Your task to perform on an android device: set default search engine in the chrome app Image 0: 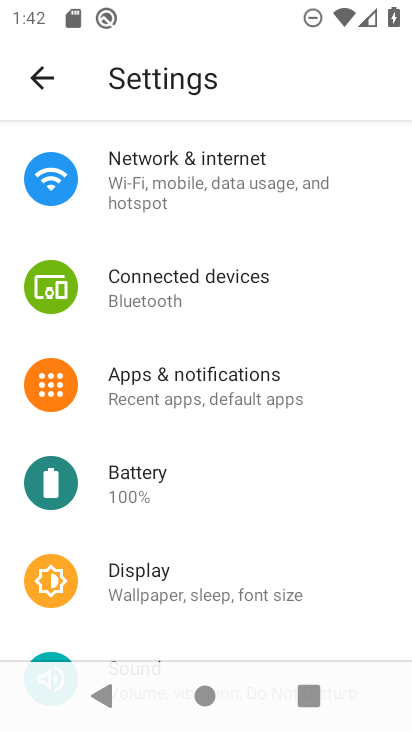
Step 0: press home button
Your task to perform on an android device: set default search engine in the chrome app Image 1: 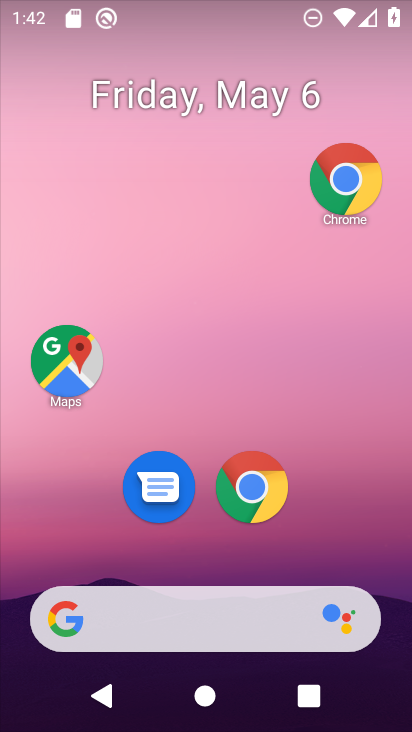
Step 1: click (246, 519)
Your task to perform on an android device: set default search engine in the chrome app Image 2: 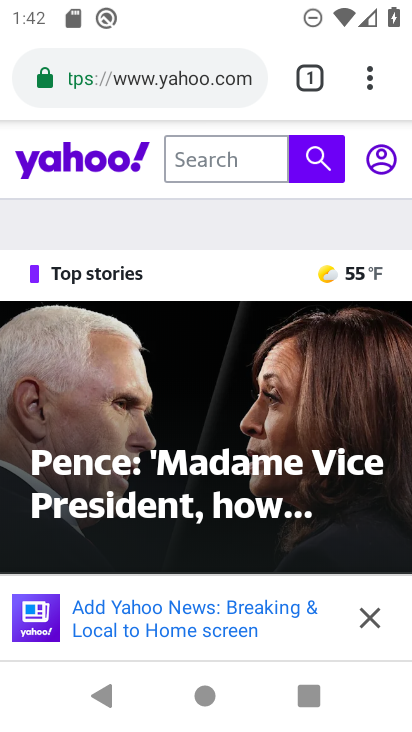
Step 2: click (377, 76)
Your task to perform on an android device: set default search engine in the chrome app Image 3: 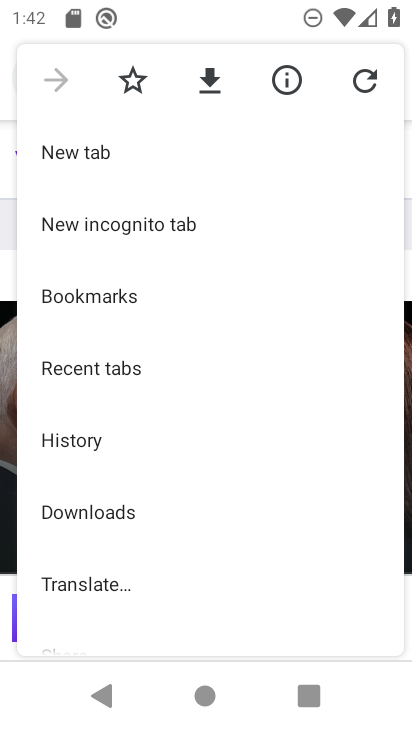
Step 3: drag from (126, 554) to (126, 371)
Your task to perform on an android device: set default search engine in the chrome app Image 4: 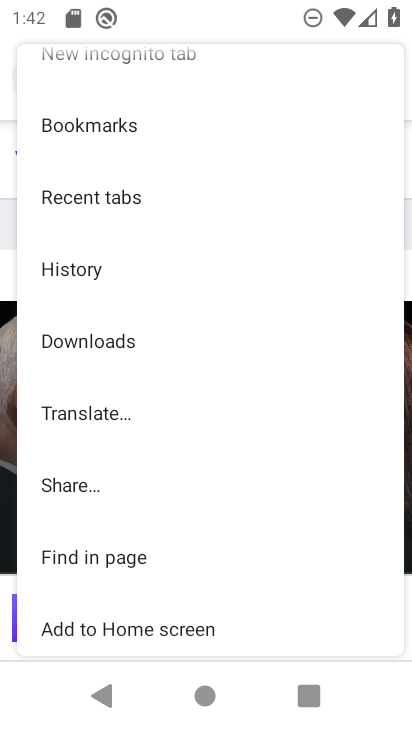
Step 4: drag from (161, 559) to (170, 394)
Your task to perform on an android device: set default search engine in the chrome app Image 5: 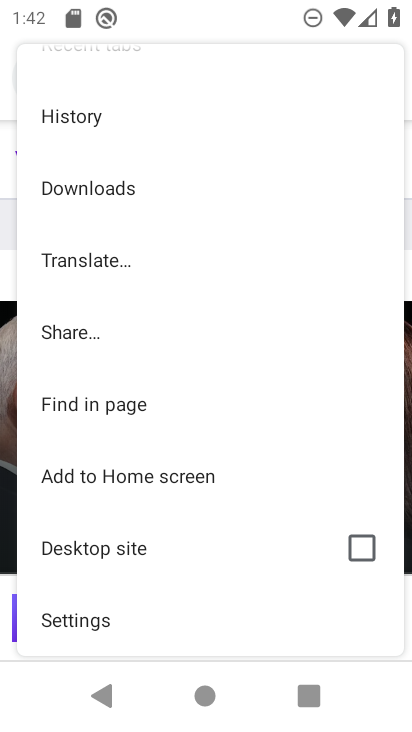
Step 5: click (137, 613)
Your task to perform on an android device: set default search engine in the chrome app Image 6: 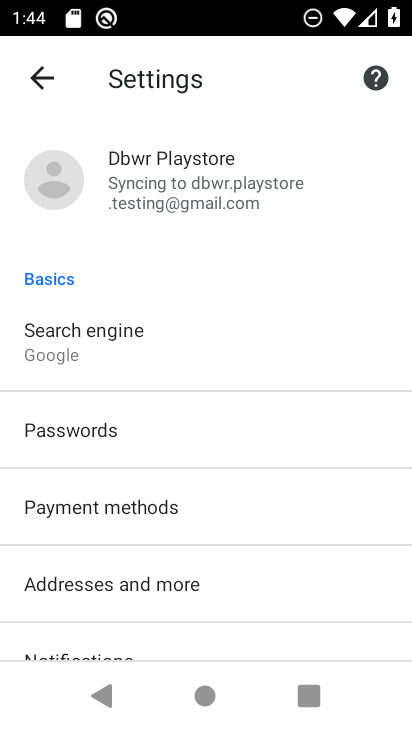
Step 6: click (112, 321)
Your task to perform on an android device: set default search engine in the chrome app Image 7: 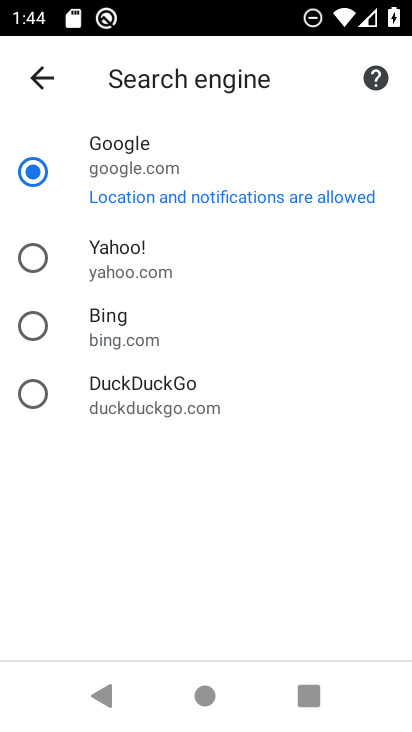
Step 7: click (113, 260)
Your task to perform on an android device: set default search engine in the chrome app Image 8: 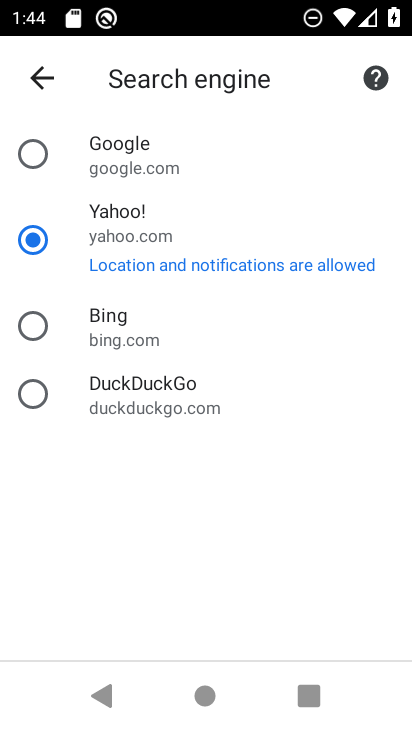
Step 8: task complete